Your task to perform on an android device: Open Chrome and go to settings Image 0: 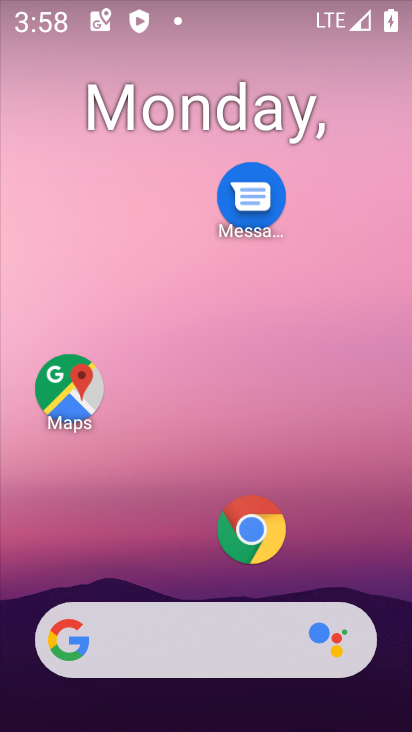
Step 0: click (257, 513)
Your task to perform on an android device: Open Chrome and go to settings Image 1: 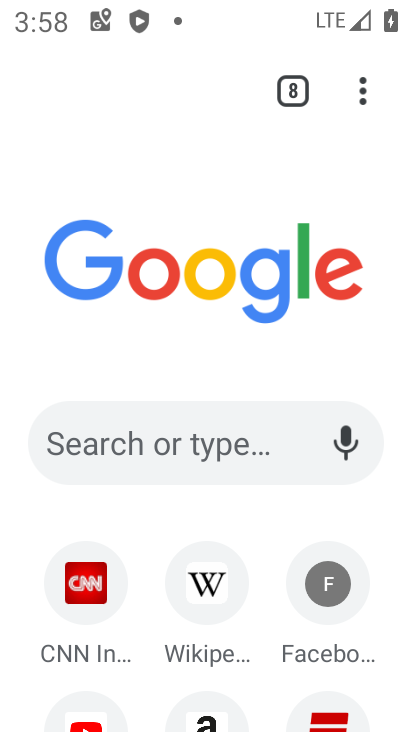
Step 1: task complete